Your task to perform on an android device: change keyboard looks Image 0: 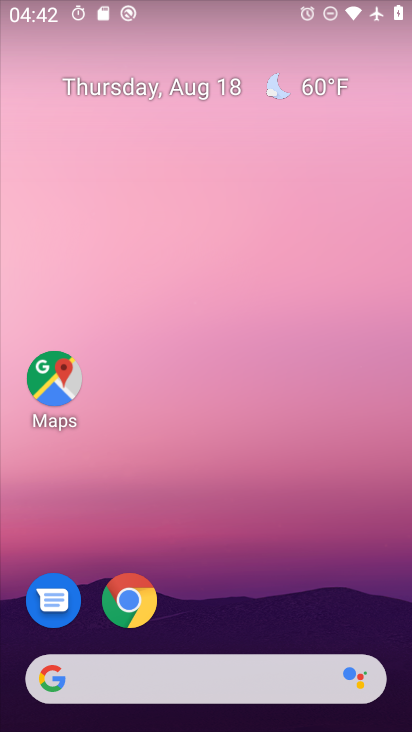
Step 0: press home button
Your task to perform on an android device: change keyboard looks Image 1: 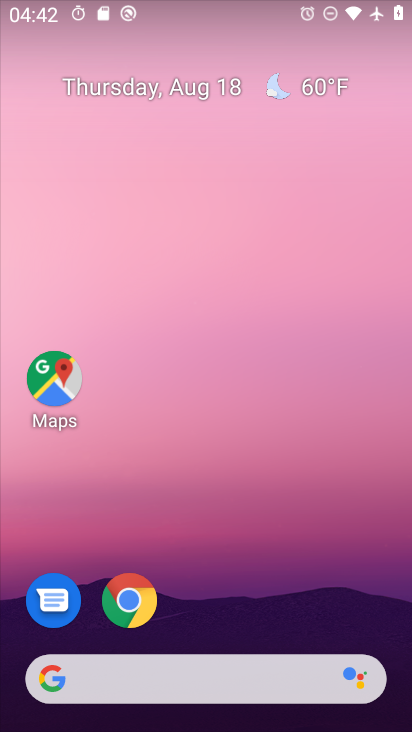
Step 1: drag from (228, 628) to (194, 25)
Your task to perform on an android device: change keyboard looks Image 2: 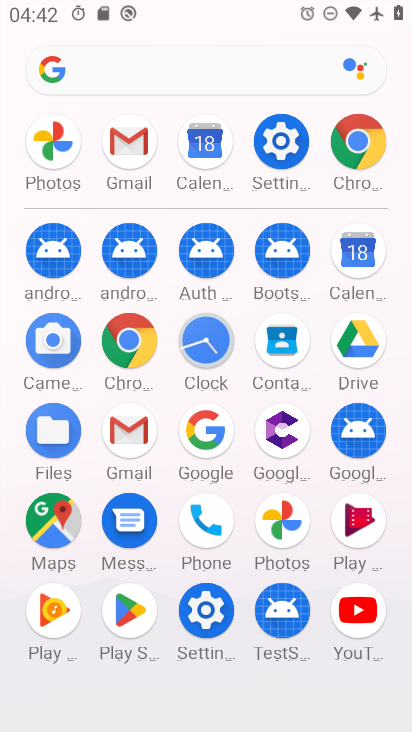
Step 2: click (286, 157)
Your task to perform on an android device: change keyboard looks Image 3: 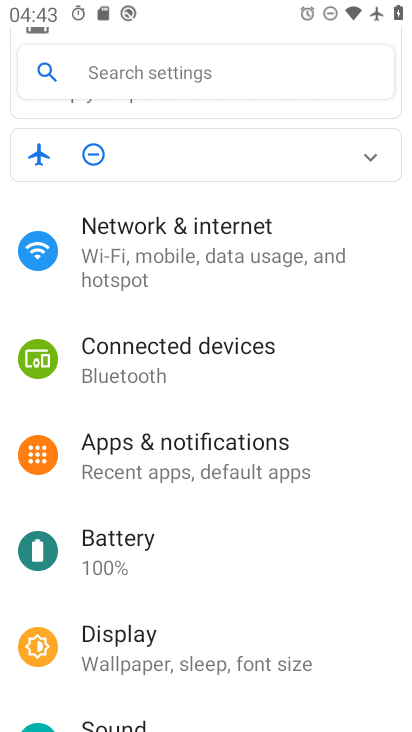
Step 3: drag from (288, 685) to (277, 62)
Your task to perform on an android device: change keyboard looks Image 4: 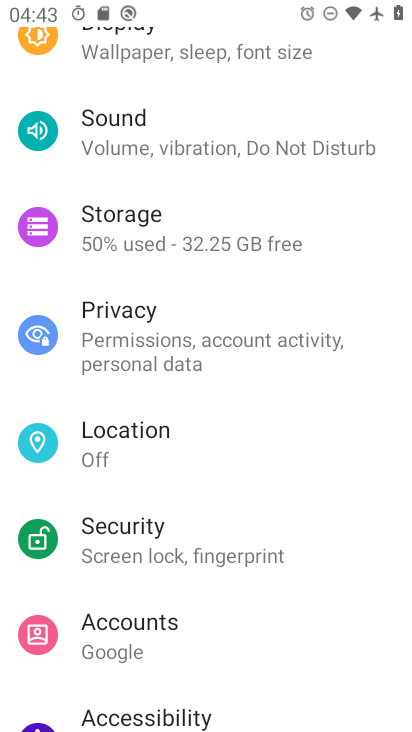
Step 4: drag from (291, 672) to (316, 86)
Your task to perform on an android device: change keyboard looks Image 5: 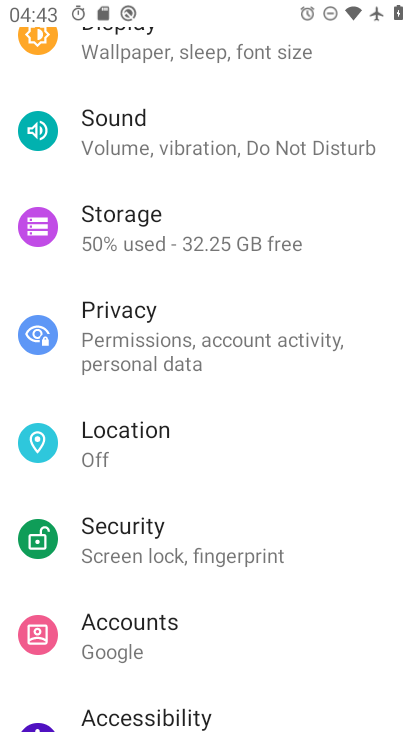
Step 5: drag from (293, 682) to (265, 92)
Your task to perform on an android device: change keyboard looks Image 6: 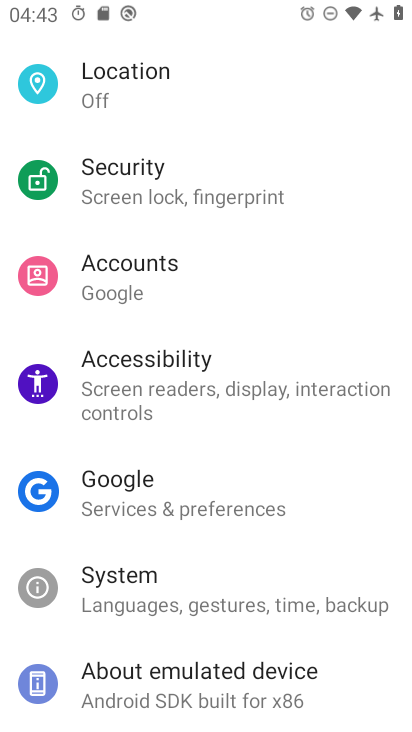
Step 6: click (127, 592)
Your task to perform on an android device: change keyboard looks Image 7: 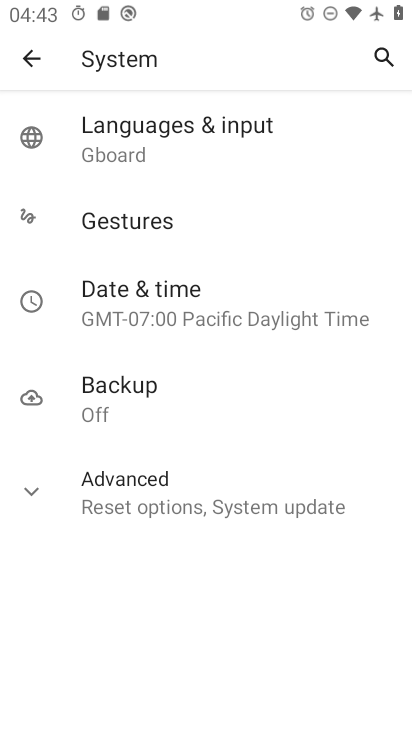
Step 7: click (128, 136)
Your task to perform on an android device: change keyboard looks Image 8: 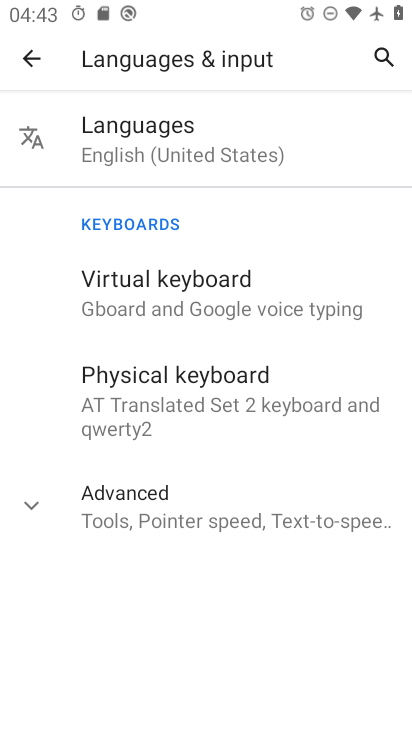
Step 8: click (173, 296)
Your task to perform on an android device: change keyboard looks Image 9: 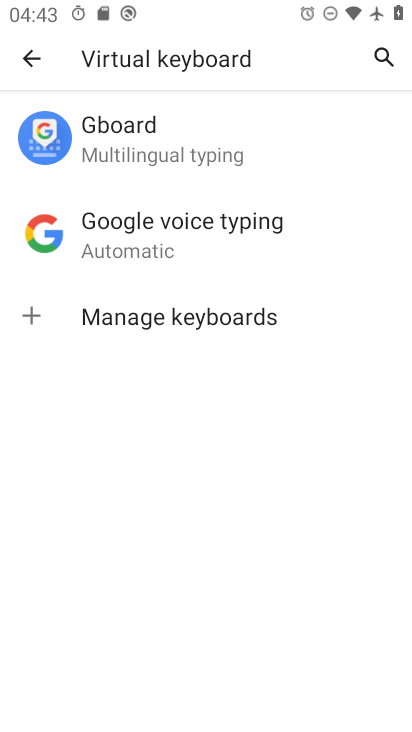
Step 9: click (115, 150)
Your task to perform on an android device: change keyboard looks Image 10: 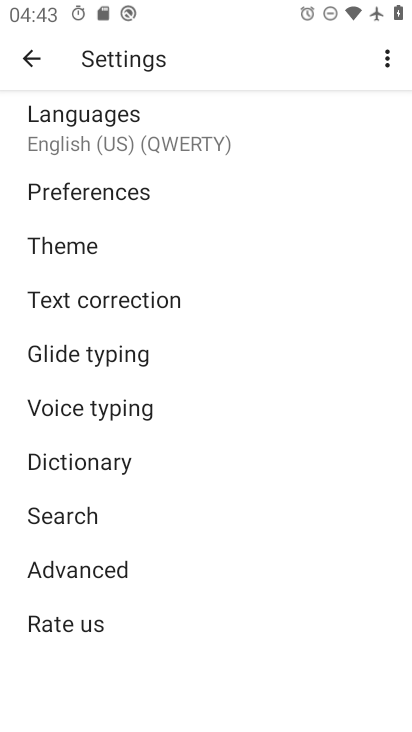
Step 10: click (59, 249)
Your task to perform on an android device: change keyboard looks Image 11: 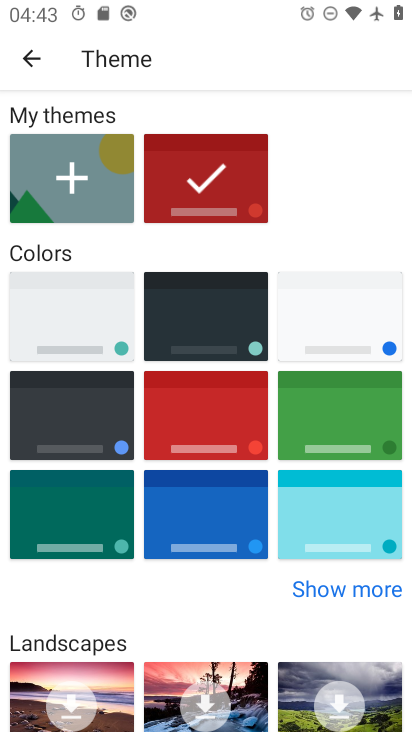
Step 11: click (176, 537)
Your task to perform on an android device: change keyboard looks Image 12: 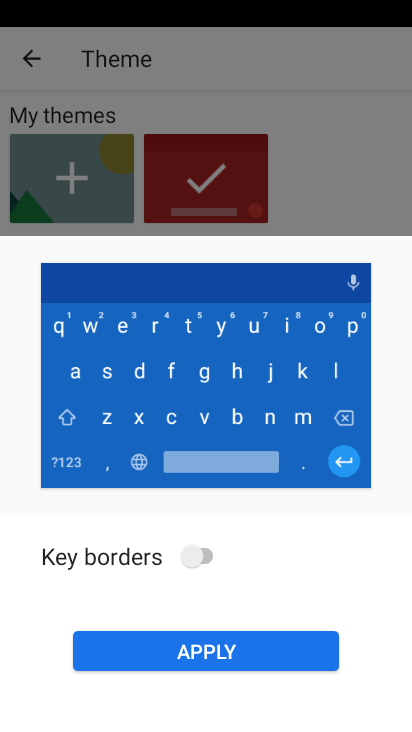
Step 12: click (122, 654)
Your task to perform on an android device: change keyboard looks Image 13: 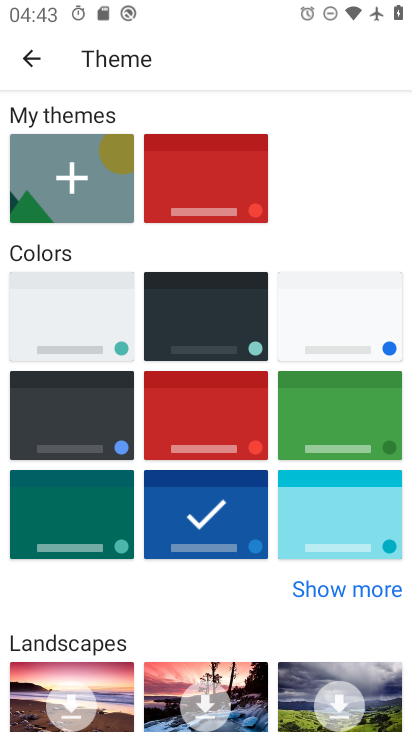
Step 13: task complete